Your task to perform on an android device: What's the weather going to be tomorrow? Image 0: 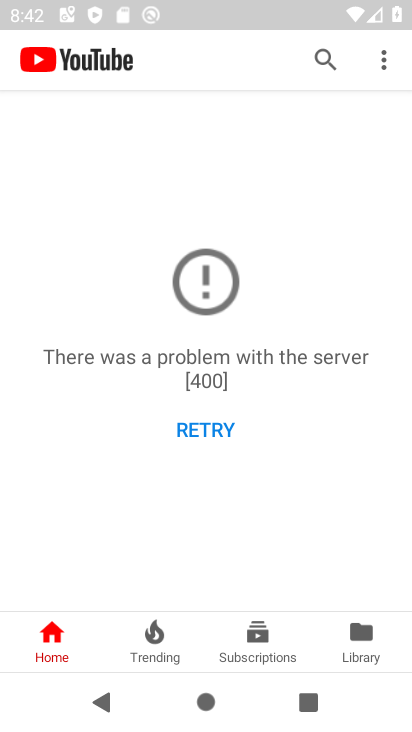
Step 0: press back button
Your task to perform on an android device: What's the weather going to be tomorrow? Image 1: 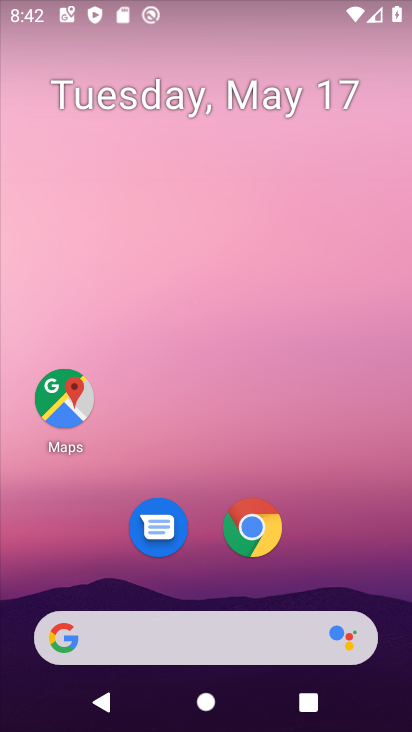
Step 1: drag from (211, 588) to (293, 52)
Your task to perform on an android device: What's the weather going to be tomorrow? Image 2: 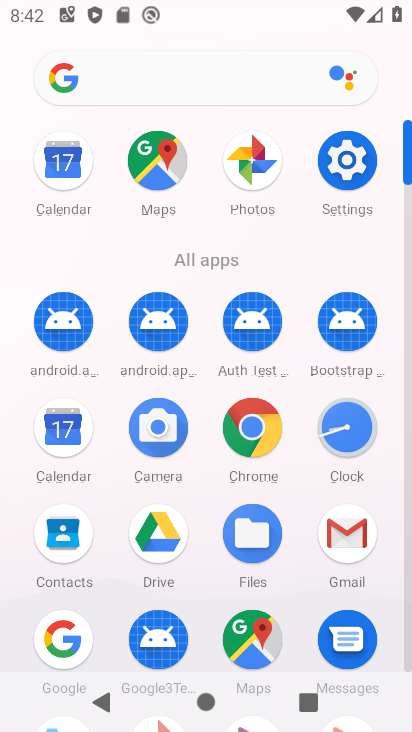
Step 2: click (56, 644)
Your task to perform on an android device: What's the weather going to be tomorrow? Image 3: 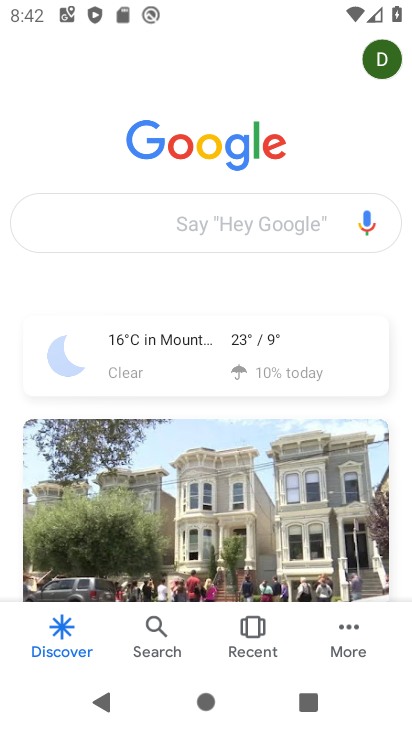
Step 3: press back button
Your task to perform on an android device: What's the weather going to be tomorrow? Image 4: 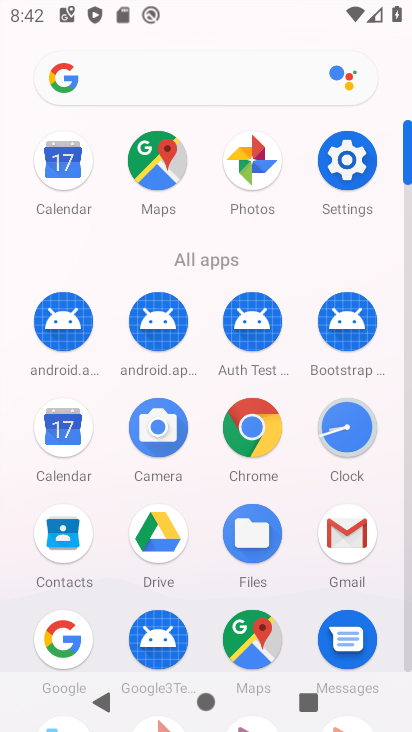
Step 4: click (56, 637)
Your task to perform on an android device: What's the weather going to be tomorrow? Image 5: 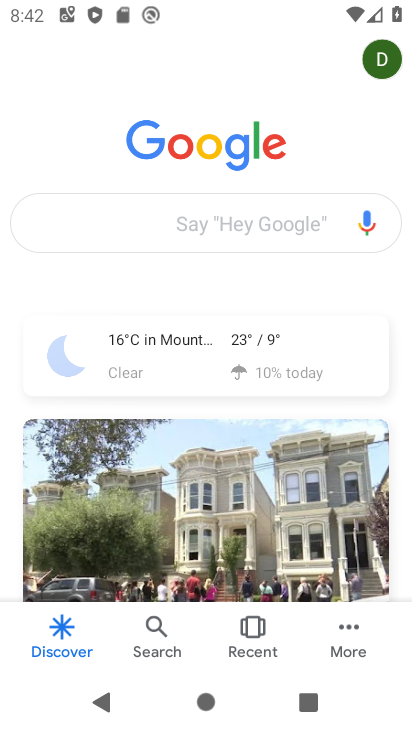
Step 5: click (194, 210)
Your task to perform on an android device: What's the weather going to be tomorrow? Image 6: 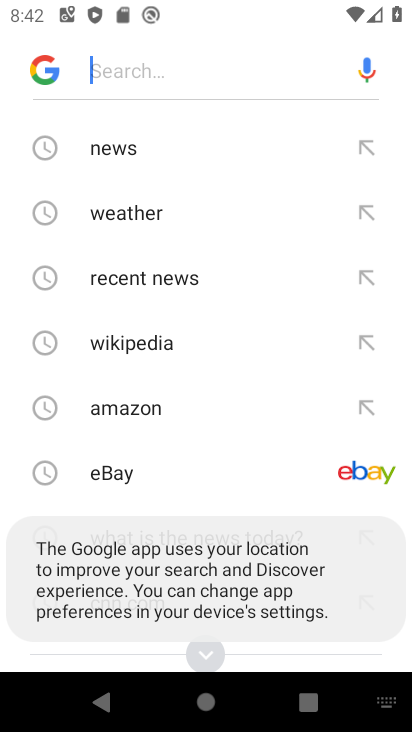
Step 6: click (127, 217)
Your task to perform on an android device: What's the weather going to be tomorrow? Image 7: 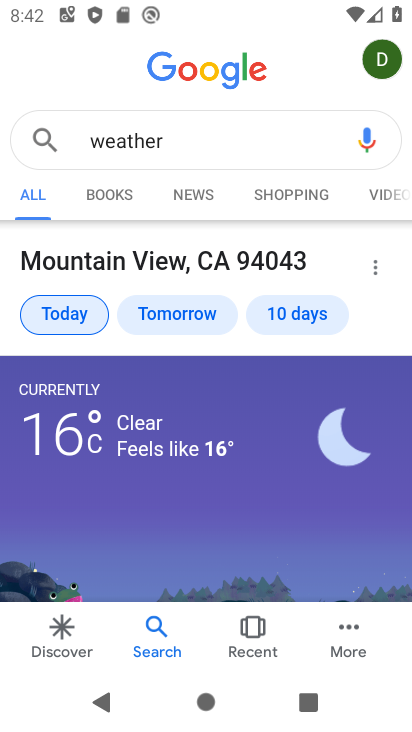
Step 7: task complete